Your task to perform on an android device: open sync settings in chrome Image 0: 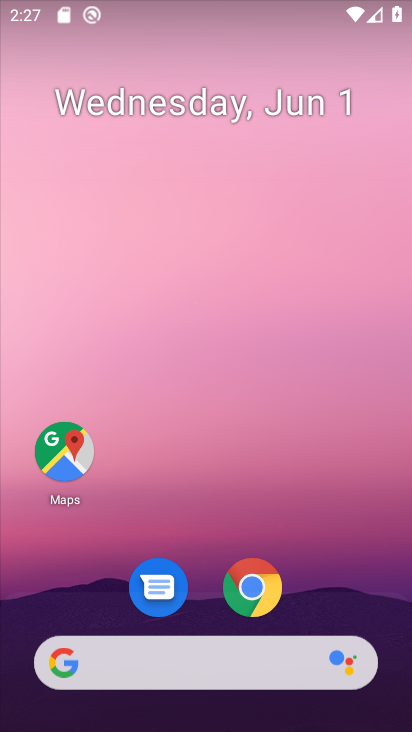
Step 0: click (251, 593)
Your task to perform on an android device: open sync settings in chrome Image 1: 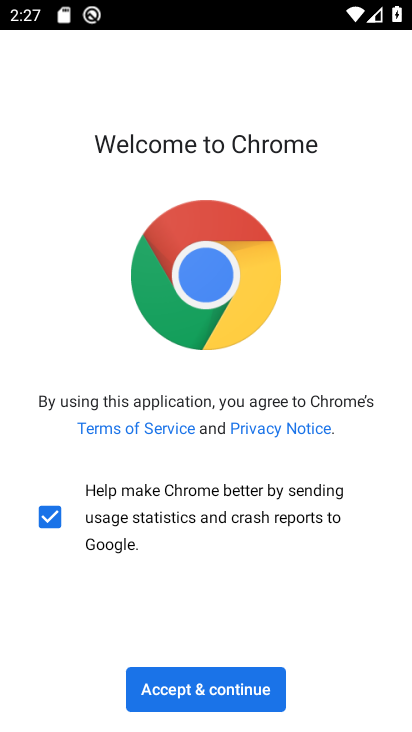
Step 1: click (151, 694)
Your task to perform on an android device: open sync settings in chrome Image 2: 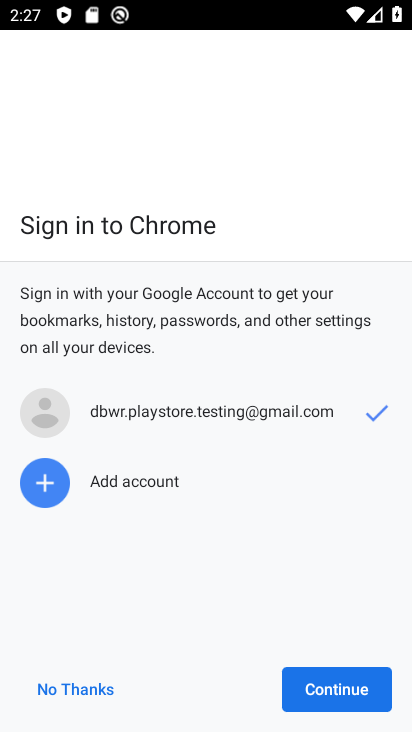
Step 2: click (339, 684)
Your task to perform on an android device: open sync settings in chrome Image 3: 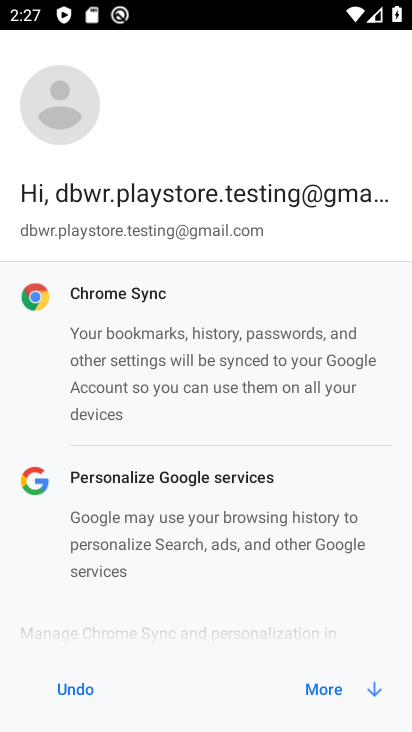
Step 3: click (348, 690)
Your task to perform on an android device: open sync settings in chrome Image 4: 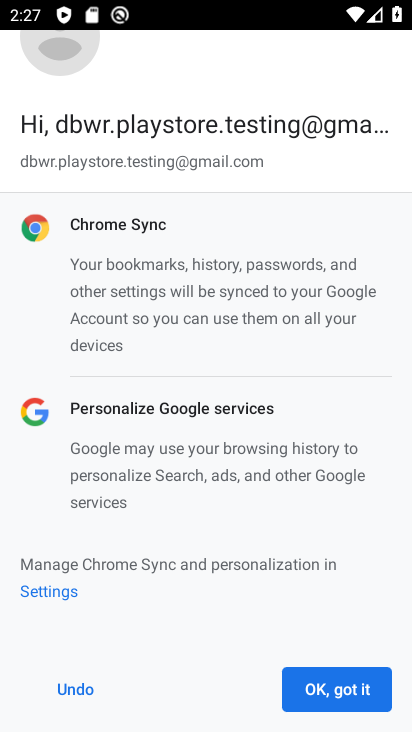
Step 4: click (364, 682)
Your task to perform on an android device: open sync settings in chrome Image 5: 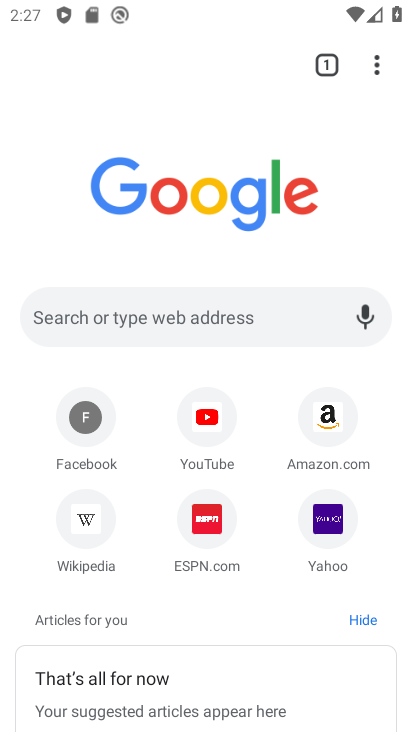
Step 5: click (379, 64)
Your task to perform on an android device: open sync settings in chrome Image 6: 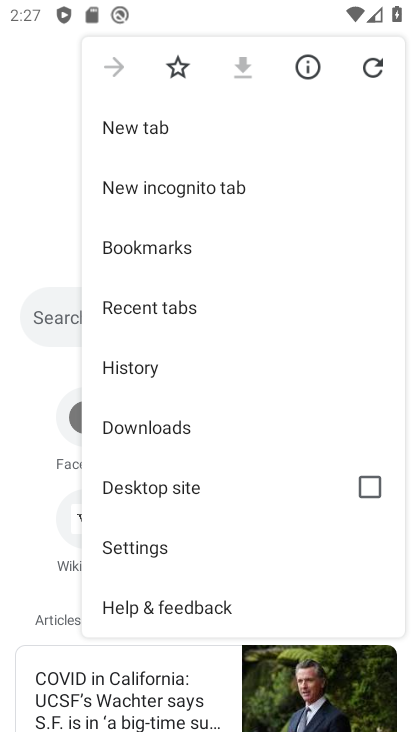
Step 6: click (163, 550)
Your task to perform on an android device: open sync settings in chrome Image 7: 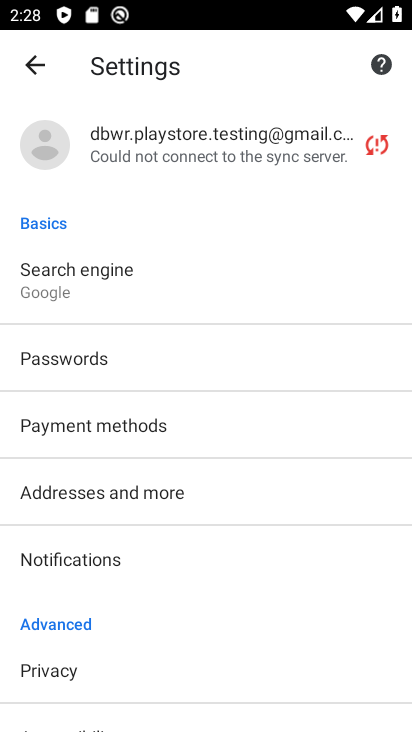
Step 7: click (252, 157)
Your task to perform on an android device: open sync settings in chrome Image 8: 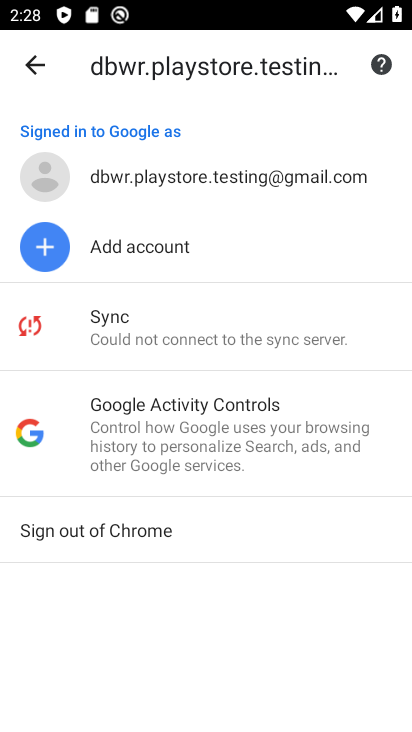
Step 8: click (158, 345)
Your task to perform on an android device: open sync settings in chrome Image 9: 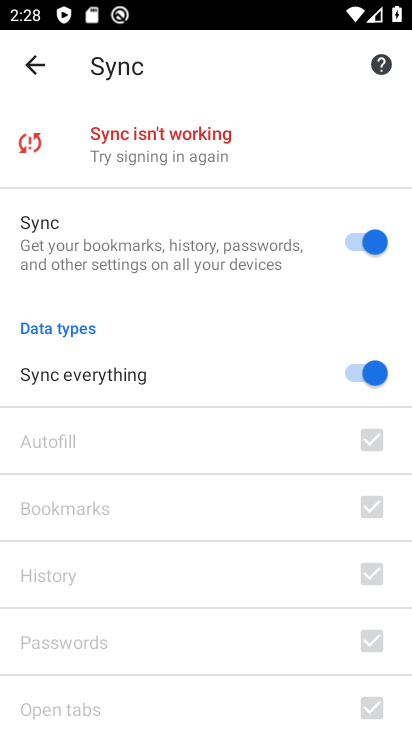
Step 9: task complete